Your task to perform on an android device: See recent photos Image 0: 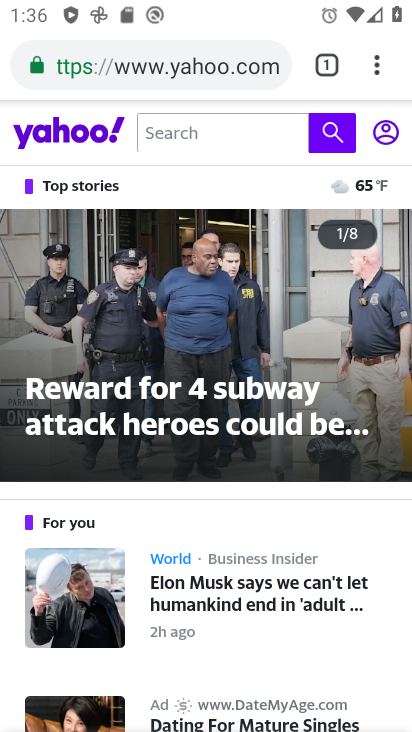
Step 0: press home button
Your task to perform on an android device: See recent photos Image 1: 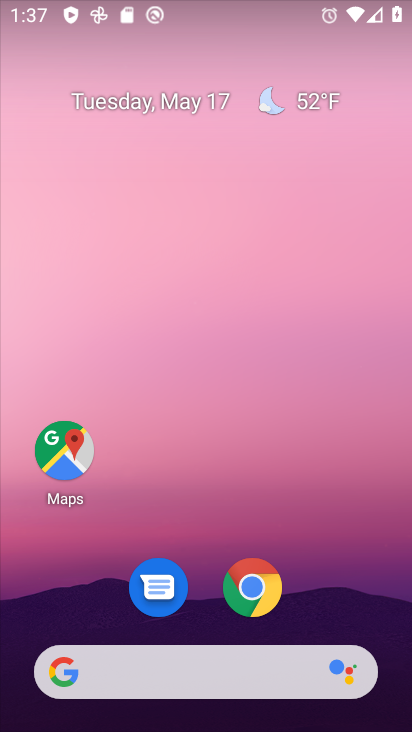
Step 1: drag from (361, 569) to (317, 1)
Your task to perform on an android device: See recent photos Image 2: 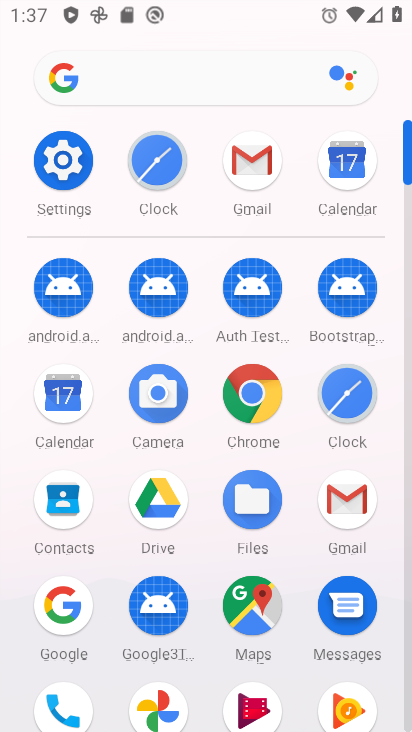
Step 2: click (142, 686)
Your task to perform on an android device: See recent photos Image 3: 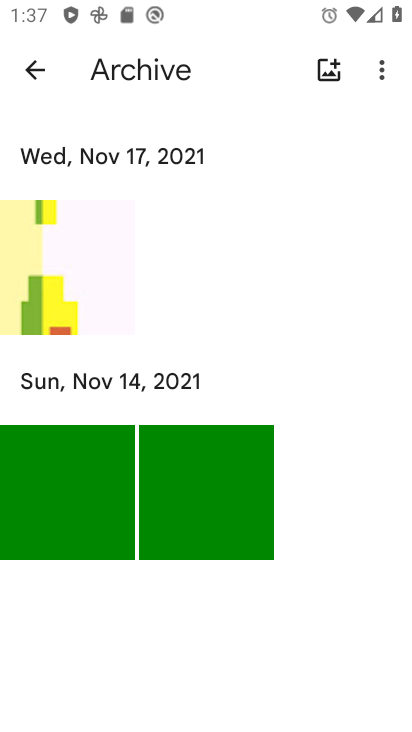
Step 3: task complete